Your task to perform on an android device: Go to Google Image 0: 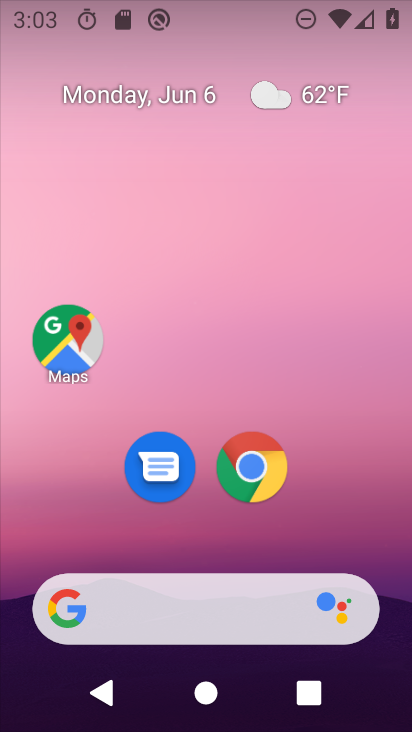
Step 0: click (139, 603)
Your task to perform on an android device: Go to Google Image 1: 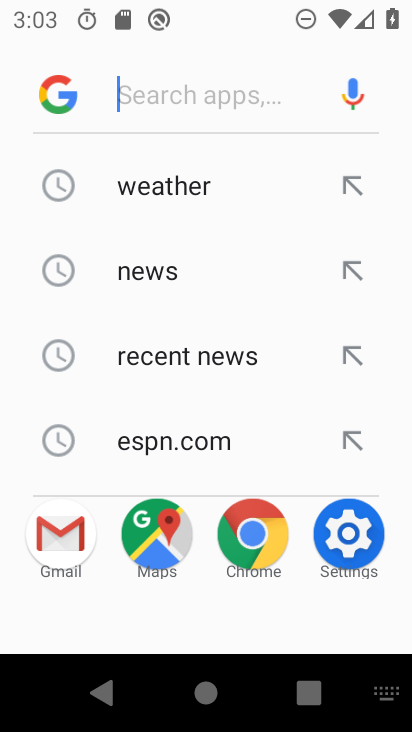
Step 1: task complete